Your task to perform on an android device: turn notification dots off Image 0: 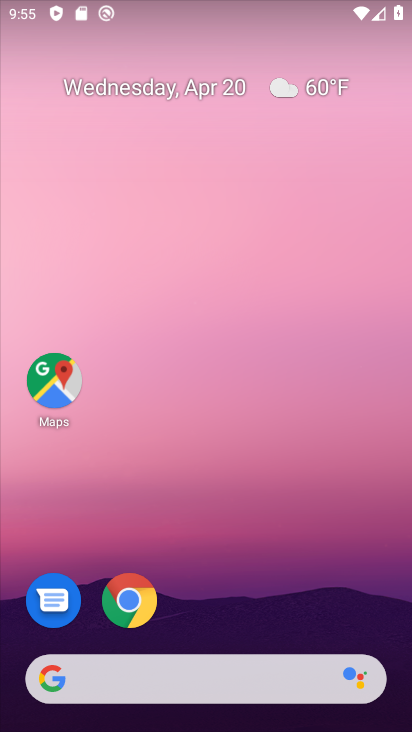
Step 0: drag from (214, 600) to (130, 13)
Your task to perform on an android device: turn notification dots off Image 1: 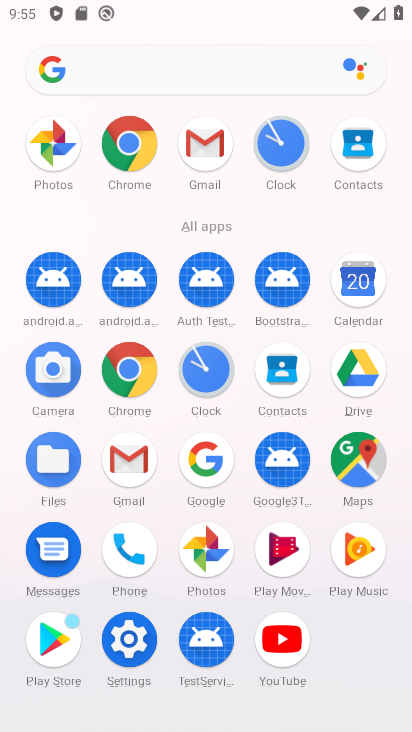
Step 1: click (136, 636)
Your task to perform on an android device: turn notification dots off Image 2: 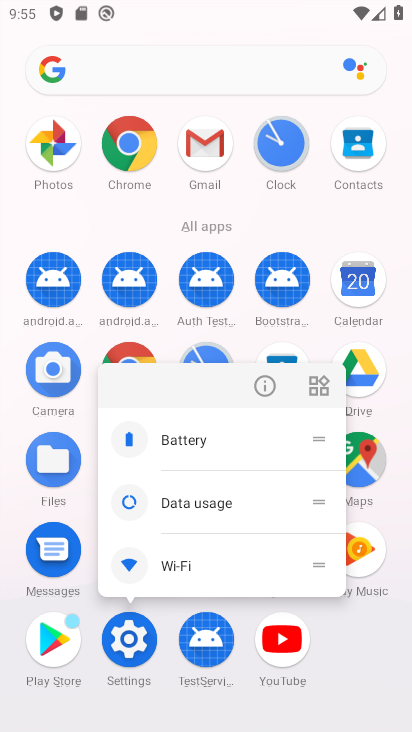
Step 2: click (135, 637)
Your task to perform on an android device: turn notification dots off Image 3: 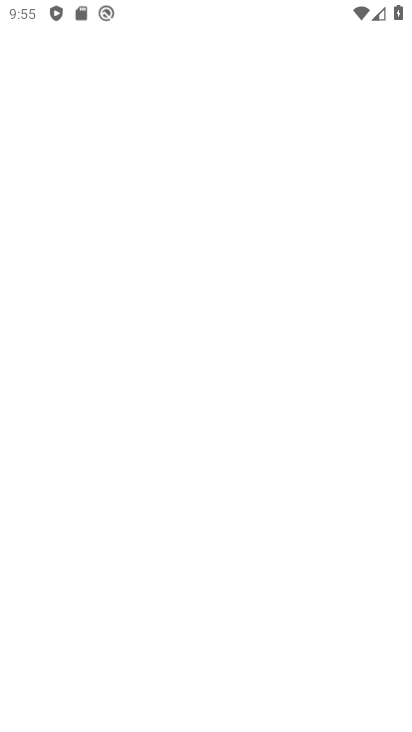
Step 3: click (135, 637)
Your task to perform on an android device: turn notification dots off Image 4: 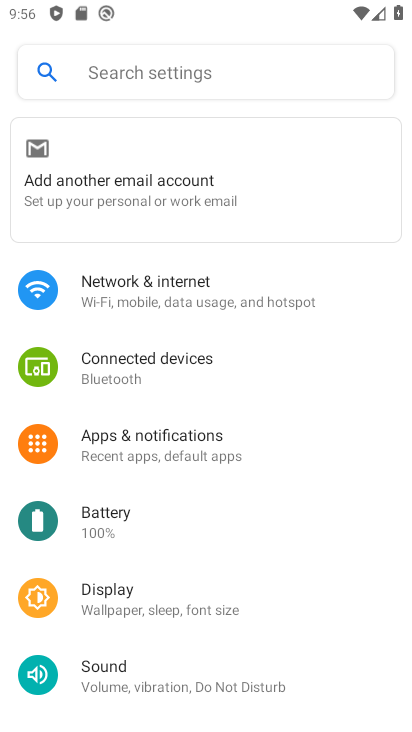
Step 4: click (149, 434)
Your task to perform on an android device: turn notification dots off Image 5: 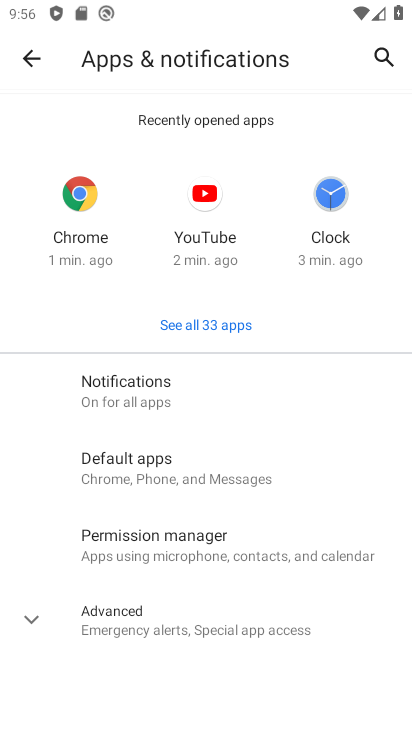
Step 5: click (131, 388)
Your task to perform on an android device: turn notification dots off Image 6: 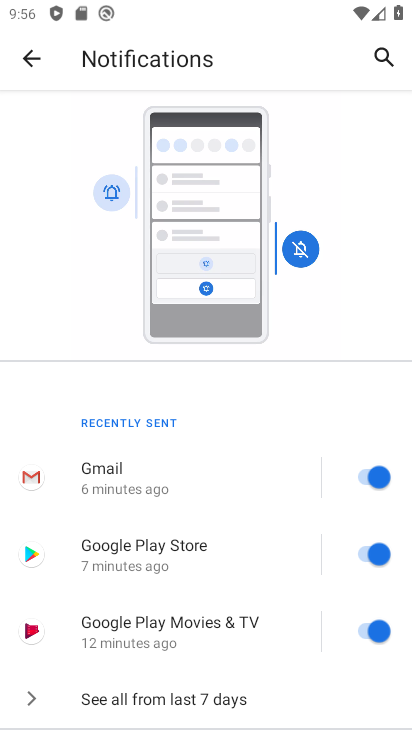
Step 6: drag from (137, 619) to (150, 229)
Your task to perform on an android device: turn notification dots off Image 7: 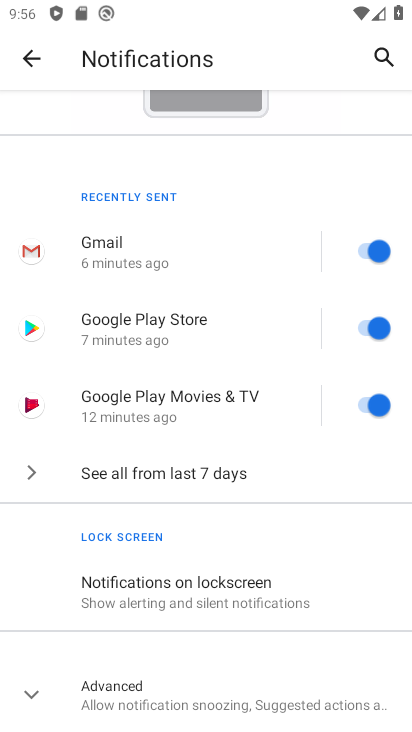
Step 7: click (37, 694)
Your task to perform on an android device: turn notification dots off Image 8: 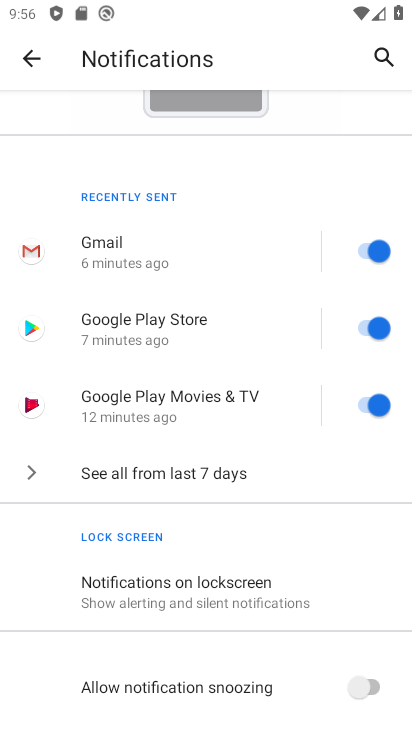
Step 8: drag from (183, 626) to (163, 297)
Your task to perform on an android device: turn notification dots off Image 9: 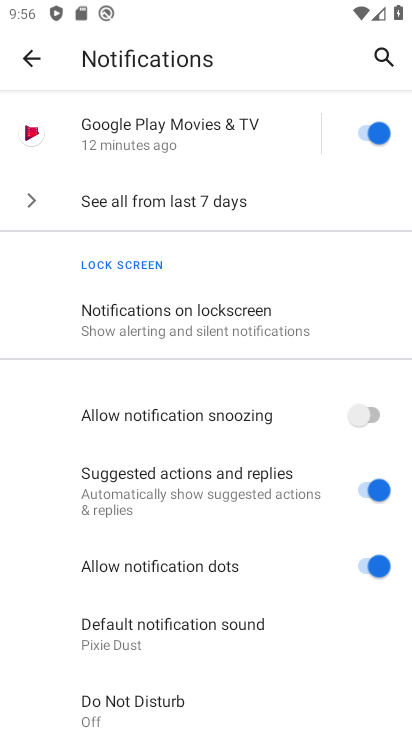
Step 9: click (374, 570)
Your task to perform on an android device: turn notification dots off Image 10: 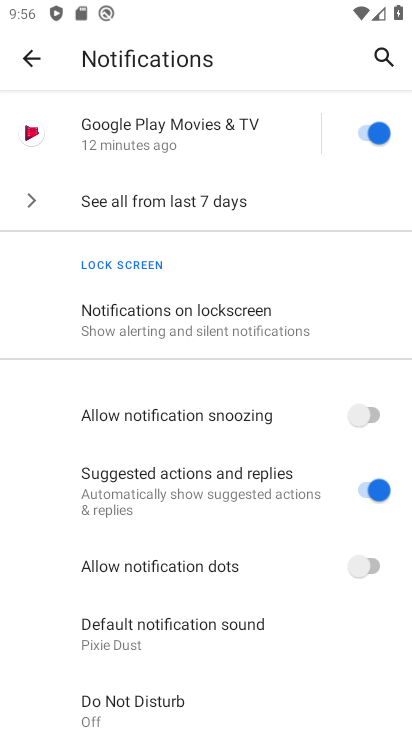
Step 10: task complete